Your task to perform on an android device: turn on wifi Image 0: 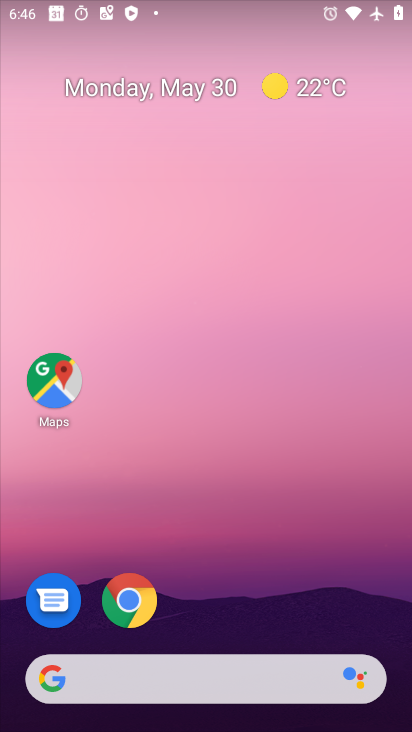
Step 0: press home button
Your task to perform on an android device: turn on wifi Image 1: 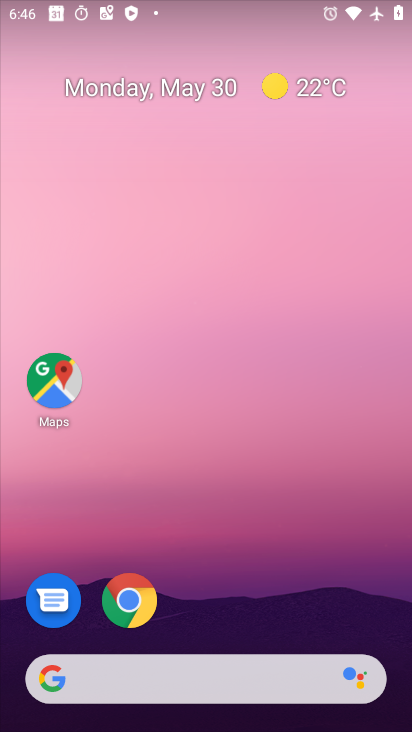
Step 1: task complete